Your task to perform on an android device: change timer sound Image 0: 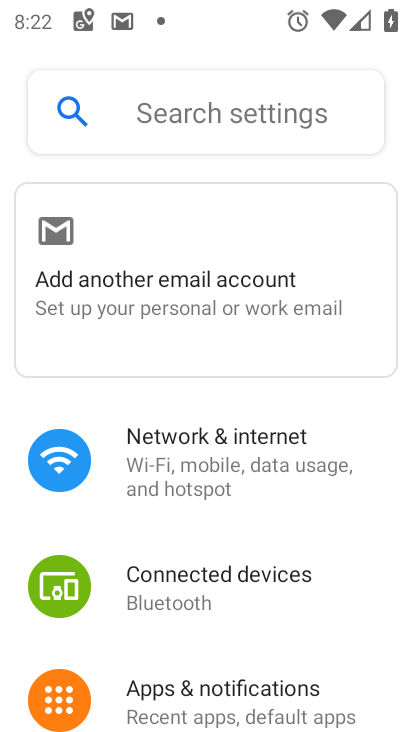
Step 0: press home button
Your task to perform on an android device: change timer sound Image 1: 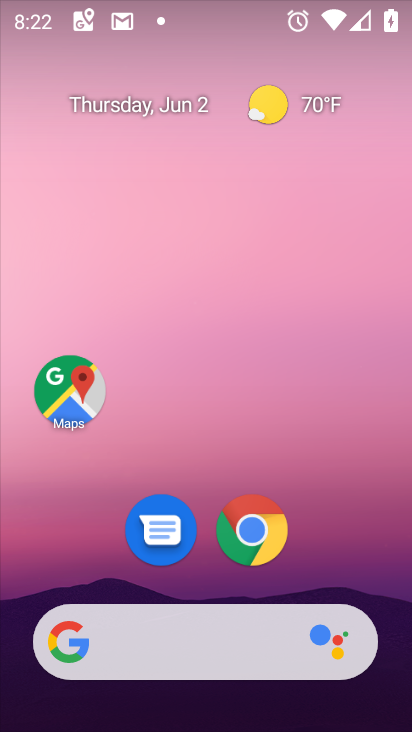
Step 1: drag from (222, 650) to (205, 447)
Your task to perform on an android device: change timer sound Image 2: 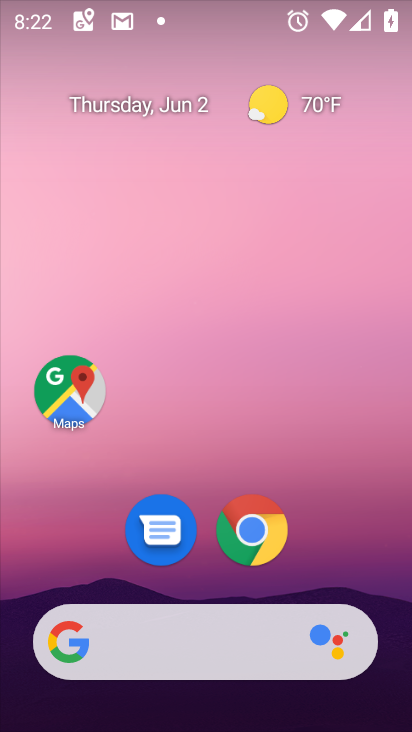
Step 2: drag from (195, 578) to (165, 246)
Your task to perform on an android device: change timer sound Image 3: 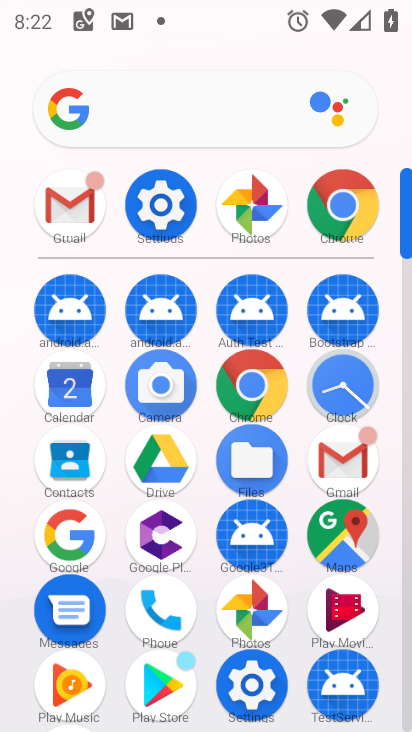
Step 3: click (316, 401)
Your task to perform on an android device: change timer sound Image 4: 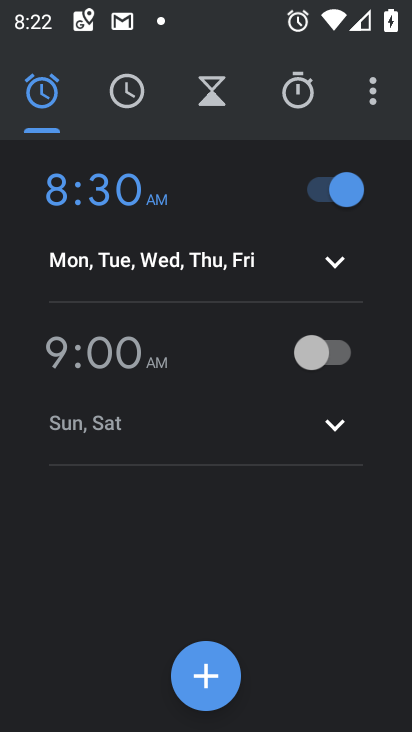
Step 4: click (372, 86)
Your task to perform on an android device: change timer sound Image 5: 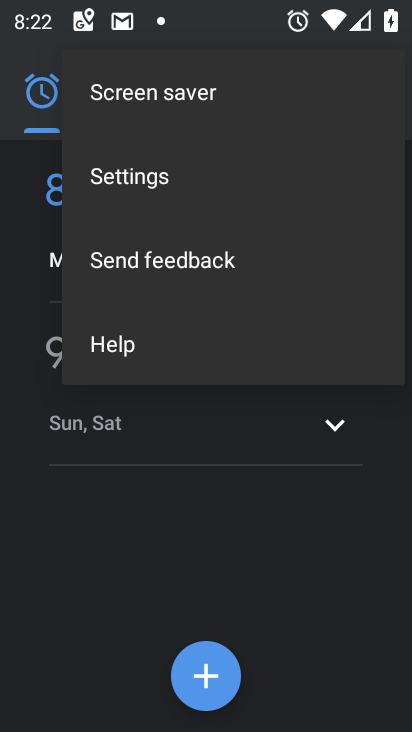
Step 5: click (161, 182)
Your task to perform on an android device: change timer sound Image 6: 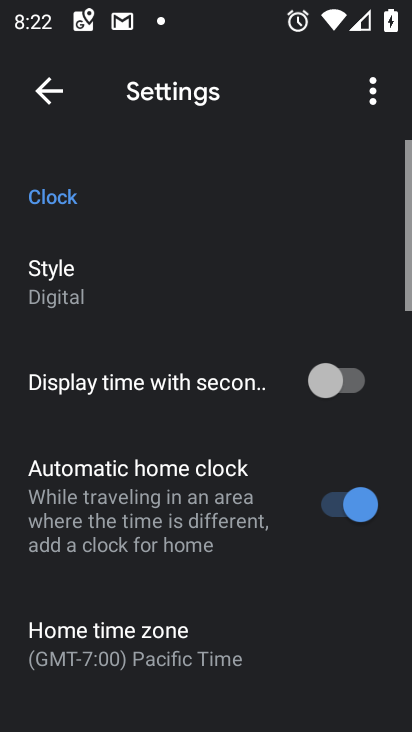
Step 6: drag from (97, 667) to (117, 194)
Your task to perform on an android device: change timer sound Image 7: 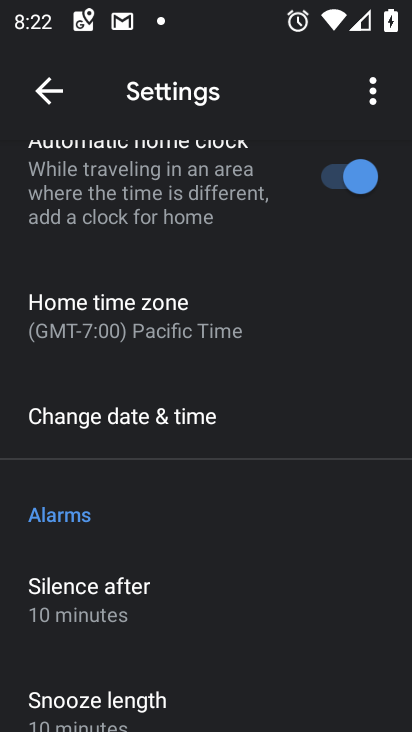
Step 7: drag from (77, 701) to (78, 393)
Your task to perform on an android device: change timer sound Image 8: 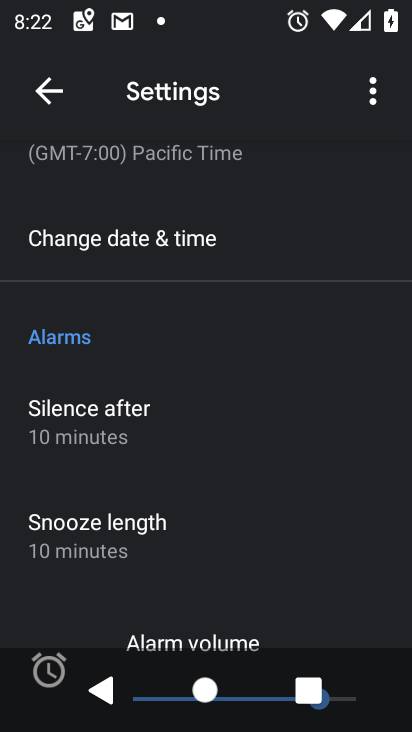
Step 8: drag from (75, 581) to (76, 357)
Your task to perform on an android device: change timer sound Image 9: 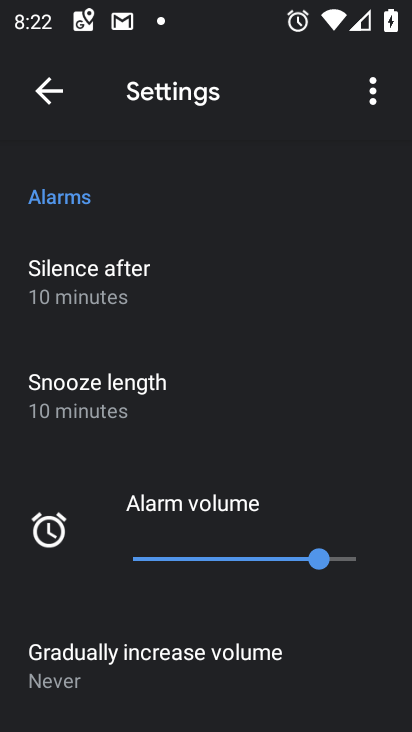
Step 9: drag from (66, 687) to (58, 453)
Your task to perform on an android device: change timer sound Image 10: 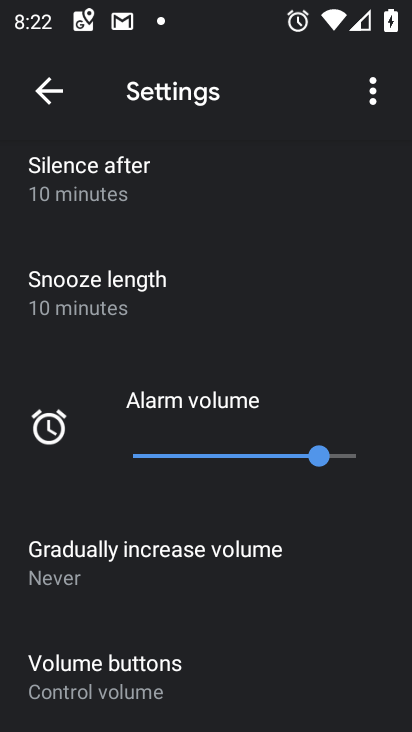
Step 10: drag from (68, 687) to (94, 385)
Your task to perform on an android device: change timer sound Image 11: 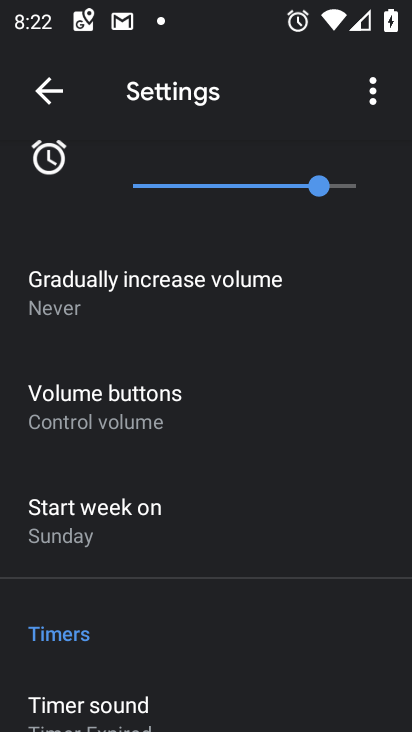
Step 11: click (63, 710)
Your task to perform on an android device: change timer sound Image 12: 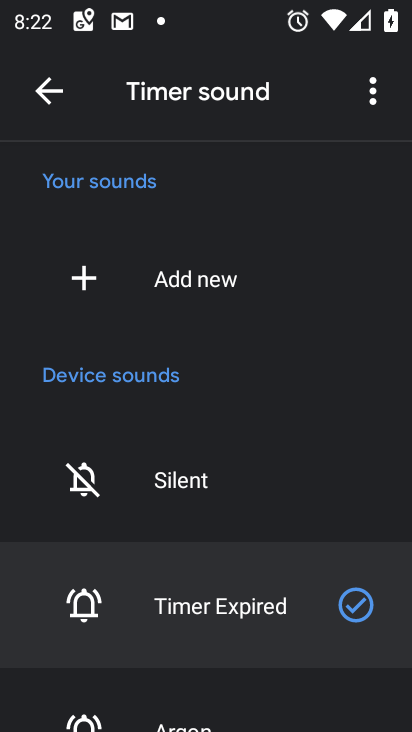
Step 12: click (193, 724)
Your task to perform on an android device: change timer sound Image 13: 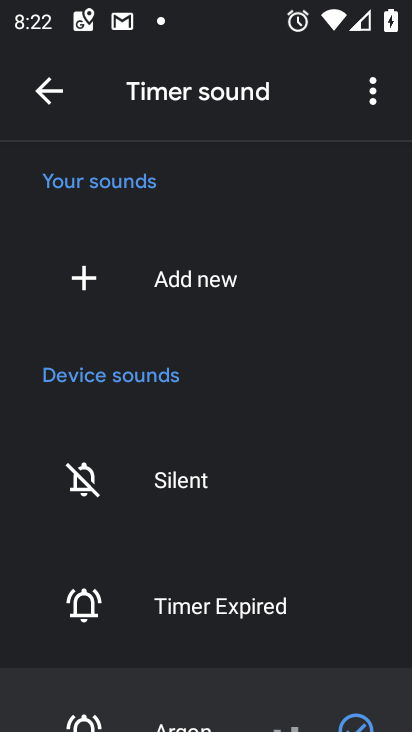
Step 13: task complete